Your task to perform on an android device: Go to Yahoo.com Image 0: 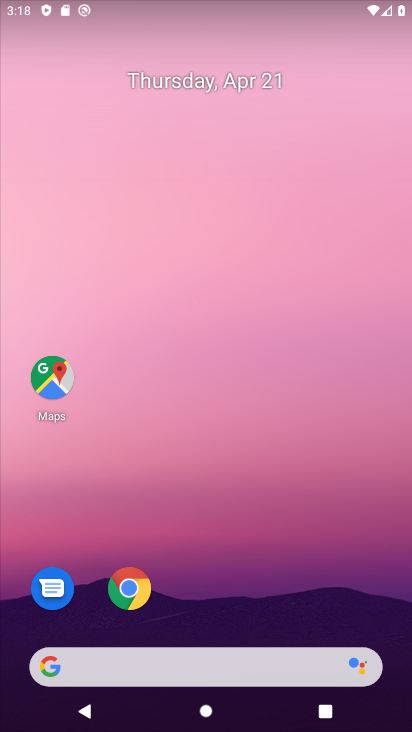
Step 0: click (134, 575)
Your task to perform on an android device: Go to Yahoo.com Image 1: 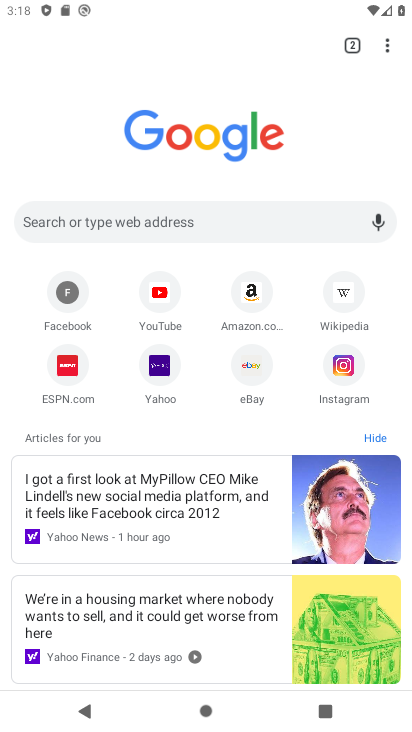
Step 1: click (204, 219)
Your task to perform on an android device: Go to Yahoo.com Image 2: 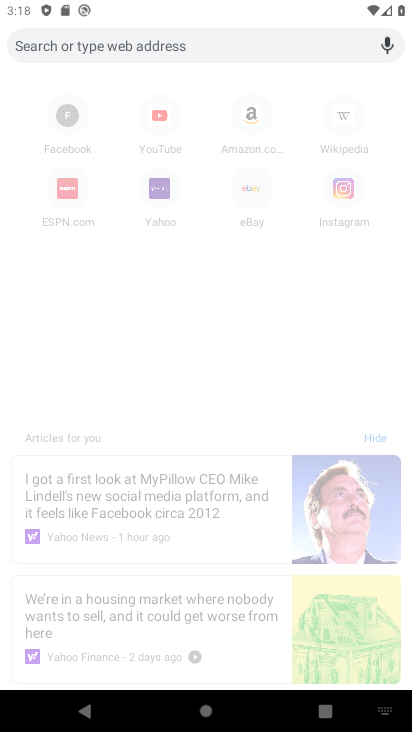
Step 2: click (155, 177)
Your task to perform on an android device: Go to Yahoo.com Image 3: 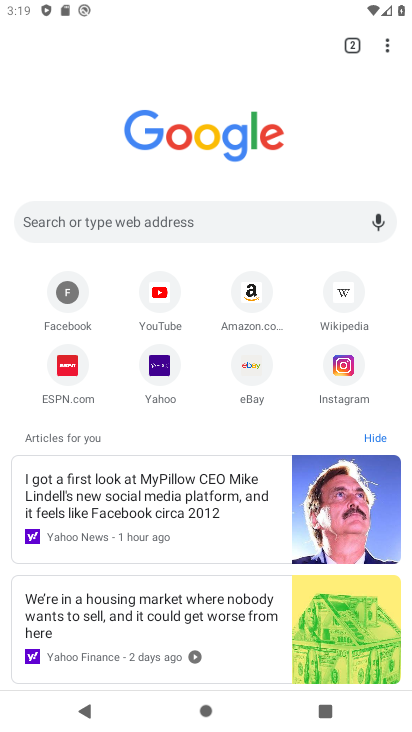
Step 3: click (150, 373)
Your task to perform on an android device: Go to Yahoo.com Image 4: 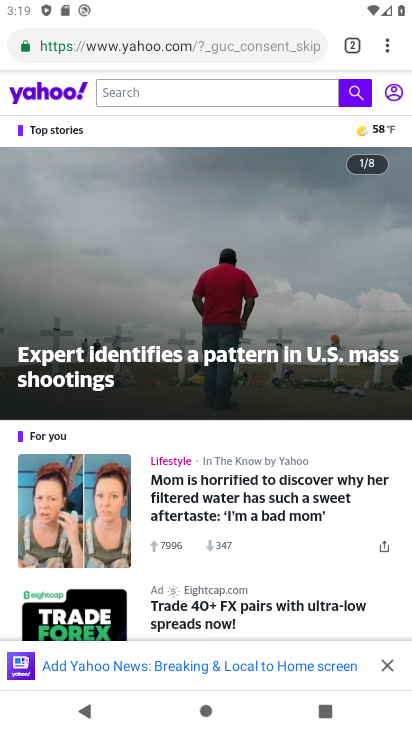
Step 4: task complete